Your task to perform on an android device: open chrome and create a bookmark for the current page Image 0: 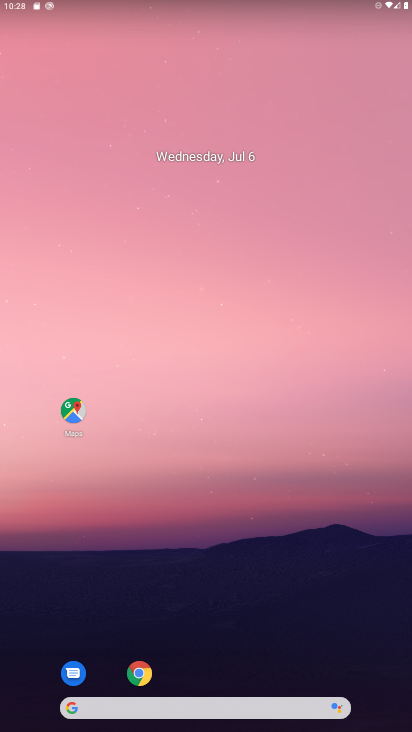
Step 0: click (144, 667)
Your task to perform on an android device: open chrome and create a bookmark for the current page Image 1: 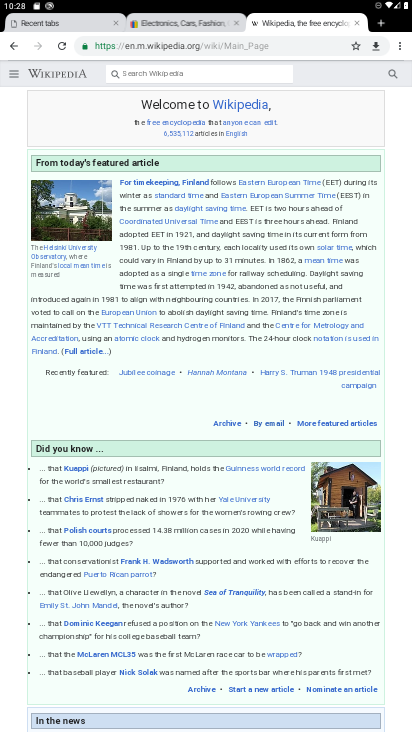
Step 1: click (353, 47)
Your task to perform on an android device: open chrome and create a bookmark for the current page Image 2: 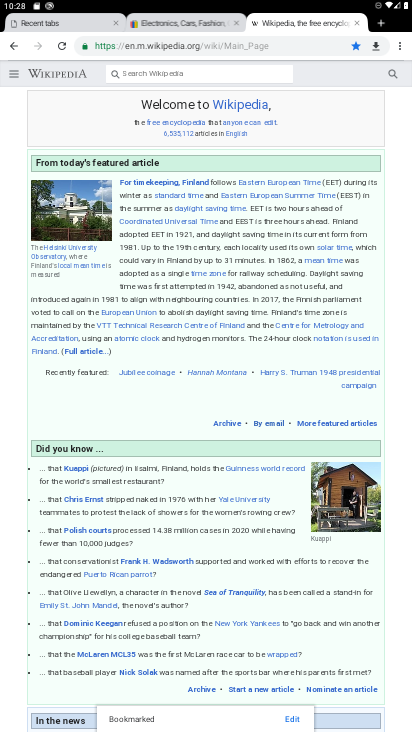
Step 2: task complete